Your task to perform on an android device: turn notification dots off Image 0: 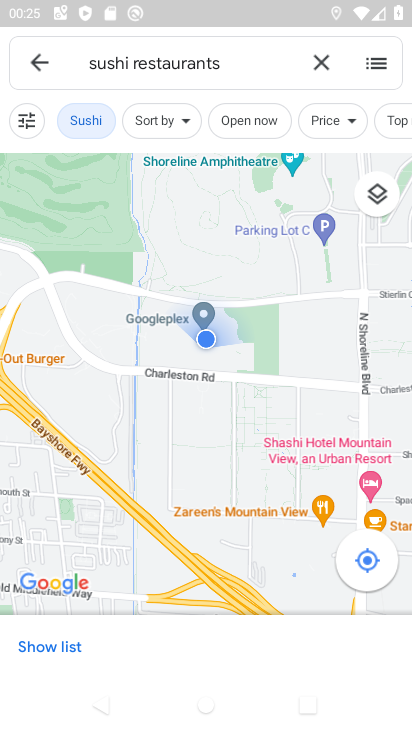
Step 0: click (273, 205)
Your task to perform on an android device: turn notification dots off Image 1: 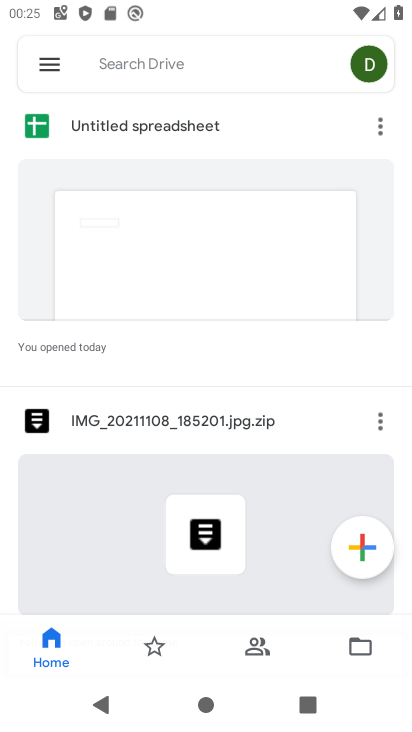
Step 1: drag from (199, 601) to (325, 81)
Your task to perform on an android device: turn notification dots off Image 2: 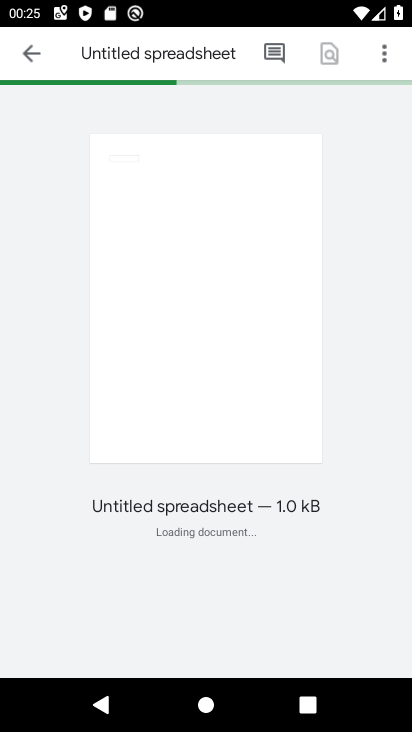
Step 2: drag from (280, 482) to (373, 161)
Your task to perform on an android device: turn notification dots off Image 3: 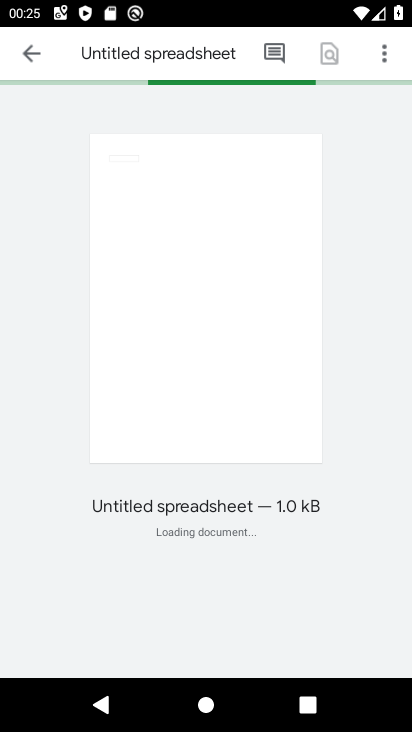
Step 3: press back button
Your task to perform on an android device: turn notification dots off Image 4: 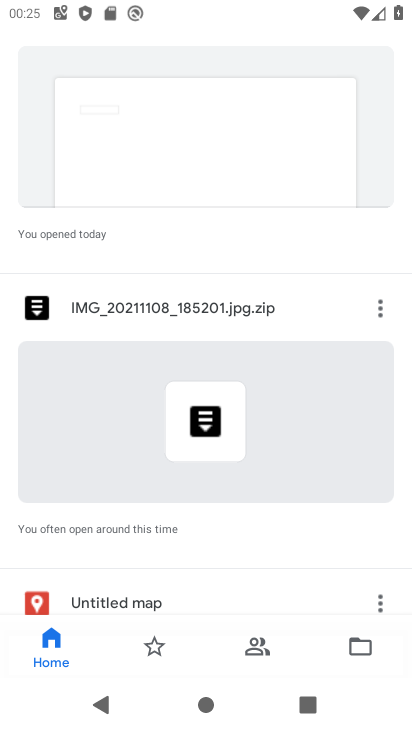
Step 4: press back button
Your task to perform on an android device: turn notification dots off Image 5: 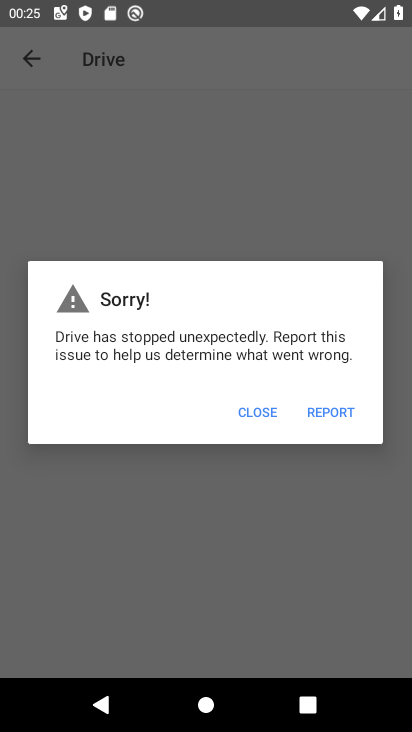
Step 5: press home button
Your task to perform on an android device: turn notification dots off Image 6: 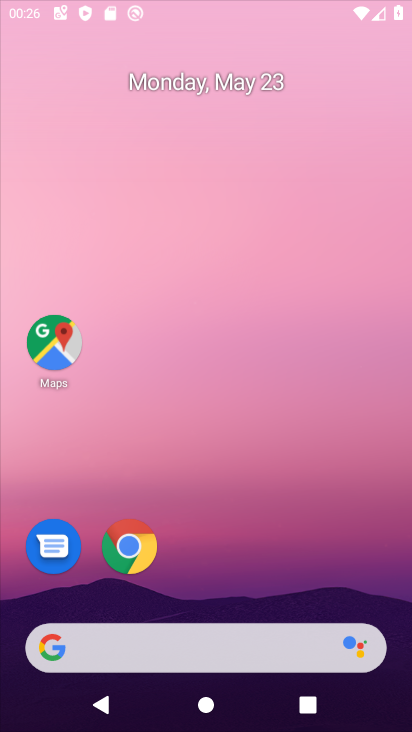
Step 6: drag from (223, 580) to (212, 175)
Your task to perform on an android device: turn notification dots off Image 7: 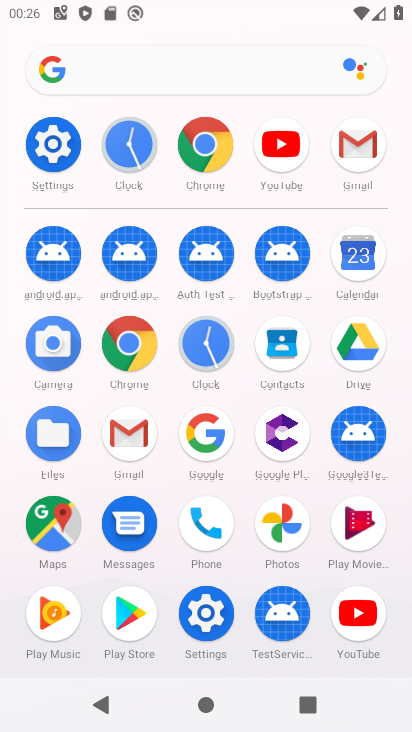
Step 7: click (38, 151)
Your task to perform on an android device: turn notification dots off Image 8: 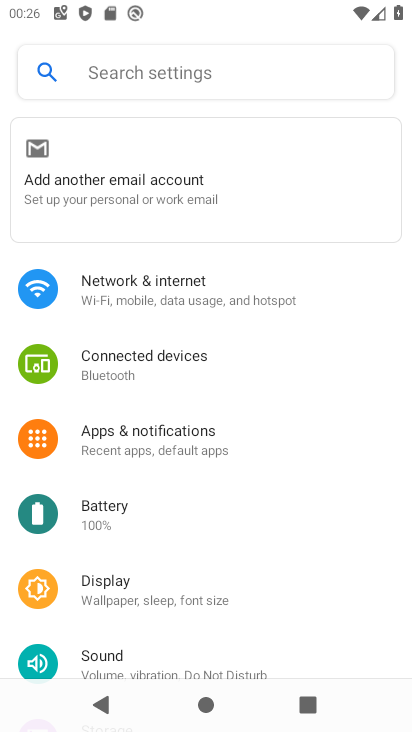
Step 8: click (144, 437)
Your task to perform on an android device: turn notification dots off Image 9: 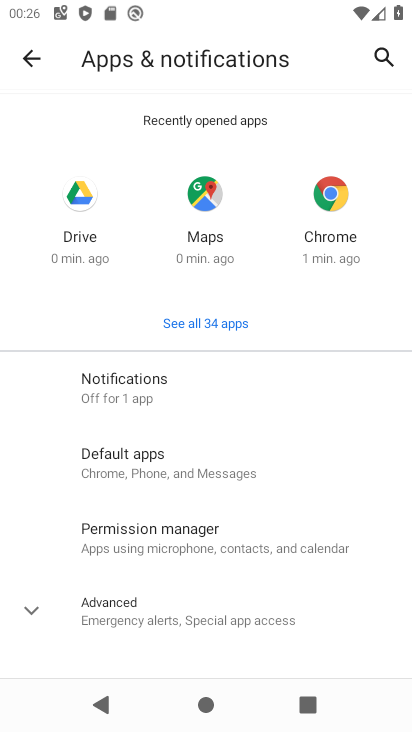
Step 9: drag from (208, 607) to (297, 226)
Your task to perform on an android device: turn notification dots off Image 10: 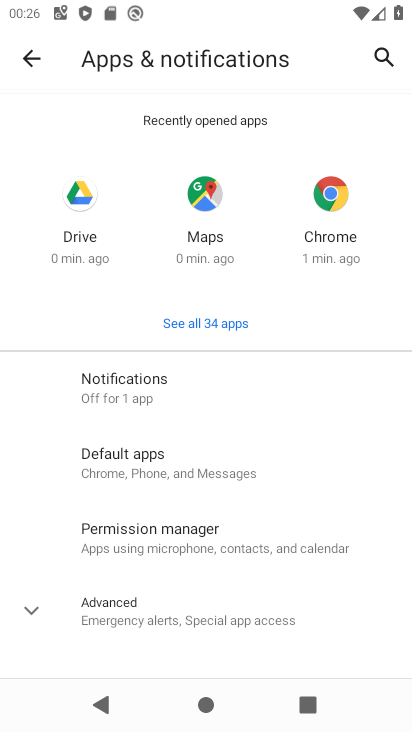
Step 10: click (232, 382)
Your task to perform on an android device: turn notification dots off Image 11: 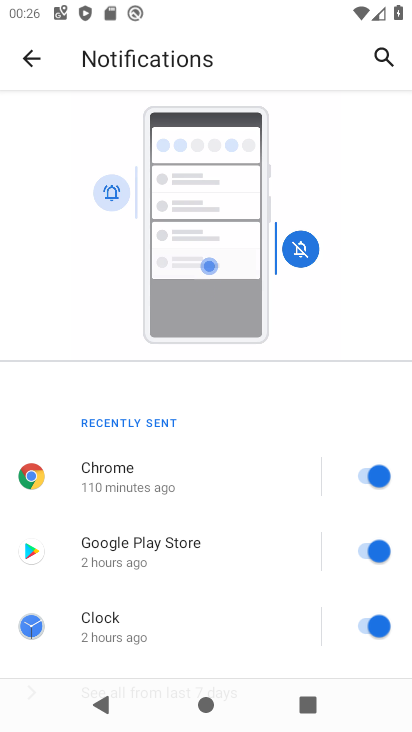
Step 11: drag from (176, 516) to (227, 46)
Your task to perform on an android device: turn notification dots off Image 12: 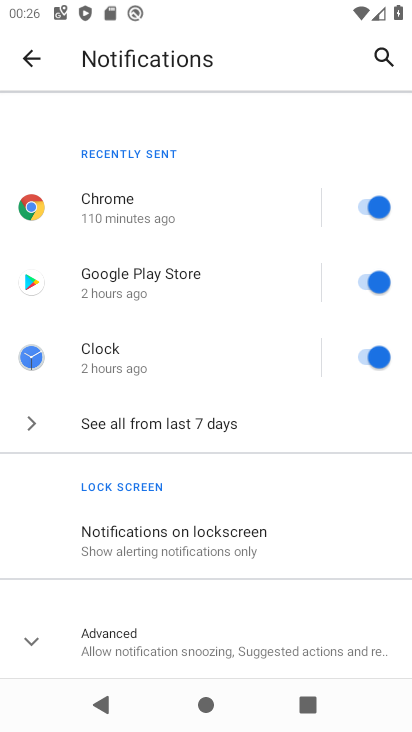
Step 12: click (131, 625)
Your task to perform on an android device: turn notification dots off Image 13: 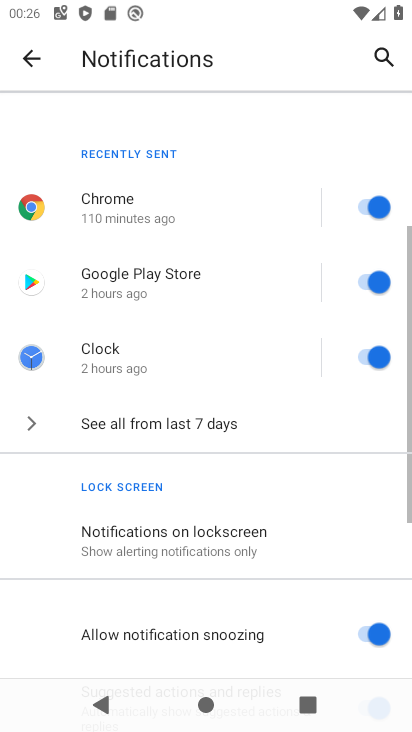
Step 13: drag from (156, 603) to (282, 166)
Your task to perform on an android device: turn notification dots off Image 14: 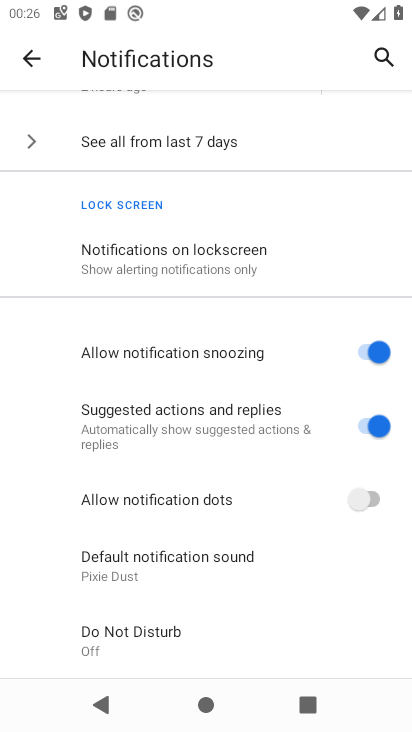
Step 14: click (264, 500)
Your task to perform on an android device: turn notification dots off Image 15: 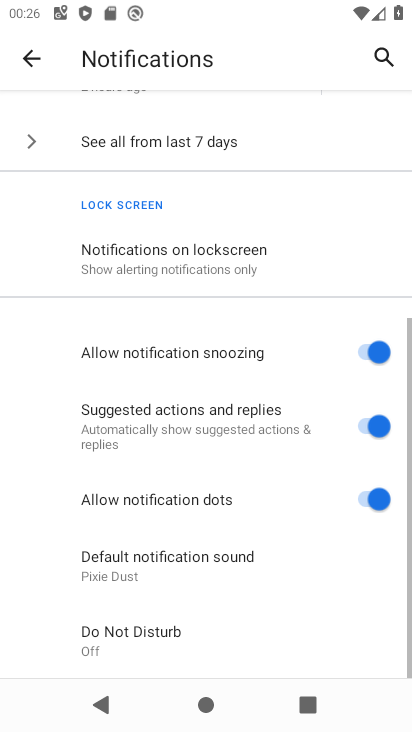
Step 15: click (259, 499)
Your task to perform on an android device: turn notification dots off Image 16: 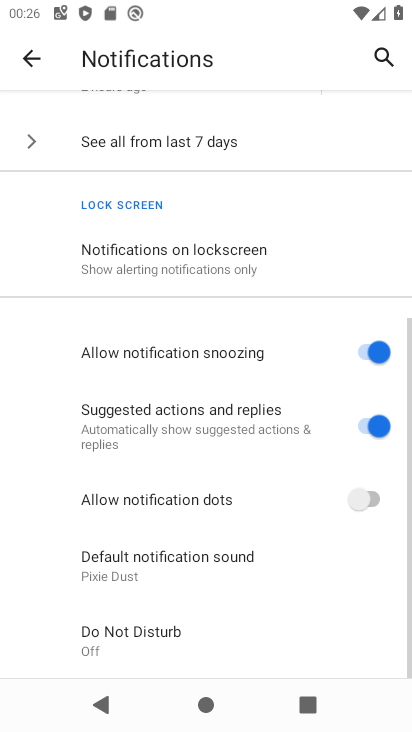
Step 16: task complete